Your task to perform on an android device: Turn on the flashlight Image 0: 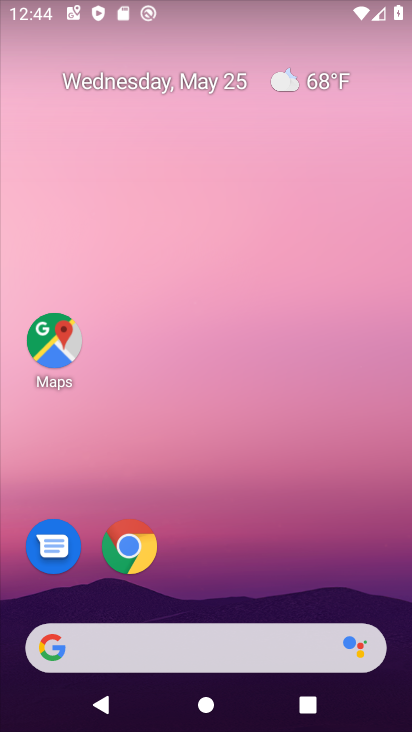
Step 0: drag from (275, 509) to (260, 148)
Your task to perform on an android device: Turn on the flashlight Image 1: 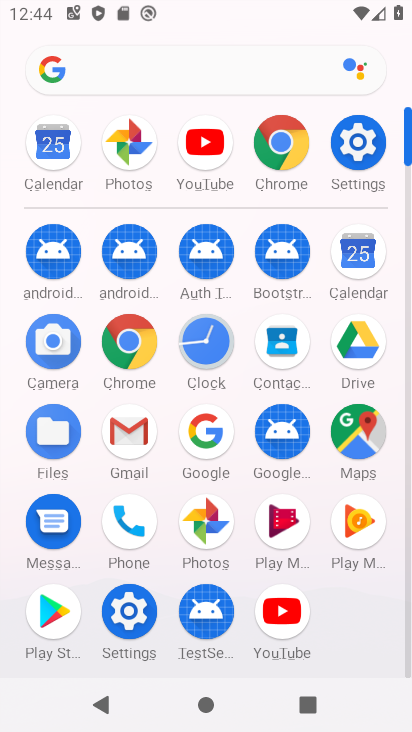
Step 1: click (369, 147)
Your task to perform on an android device: Turn on the flashlight Image 2: 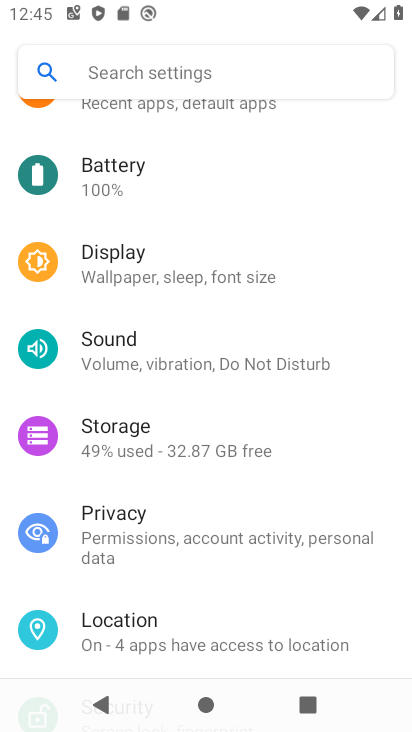
Step 2: task complete